Your task to perform on an android device: Open display settings Image 0: 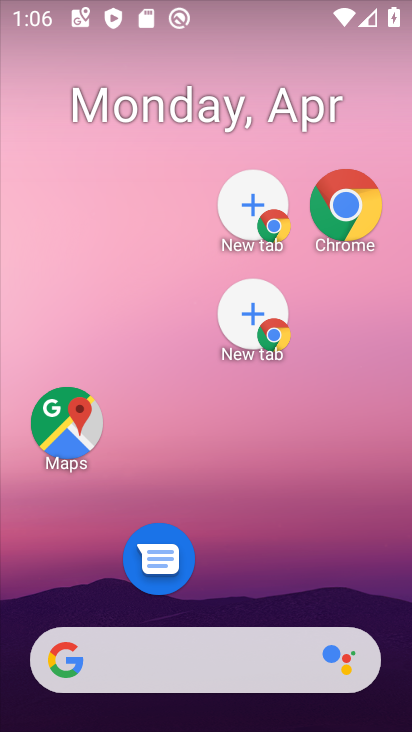
Step 0: drag from (215, 610) to (154, 108)
Your task to perform on an android device: Open display settings Image 1: 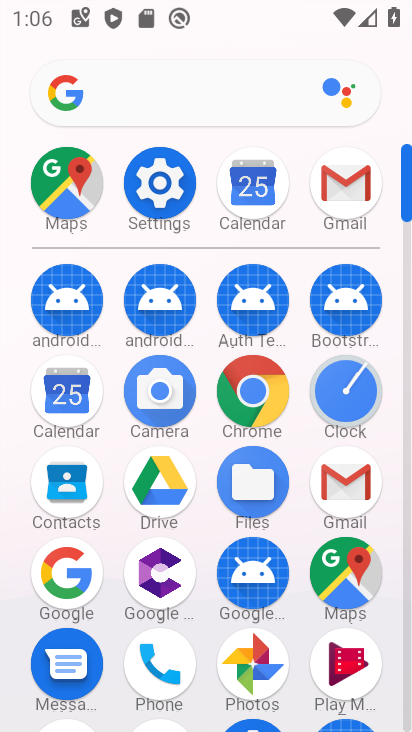
Step 1: click (175, 190)
Your task to perform on an android device: Open display settings Image 2: 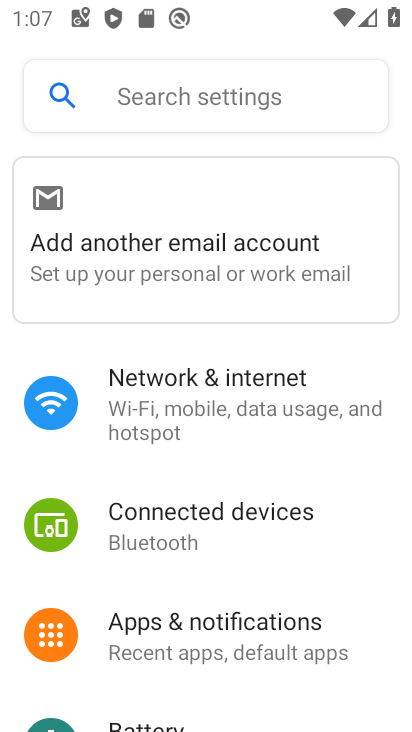
Step 2: drag from (210, 588) to (186, 237)
Your task to perform on an android device: Open display settings Image 3: 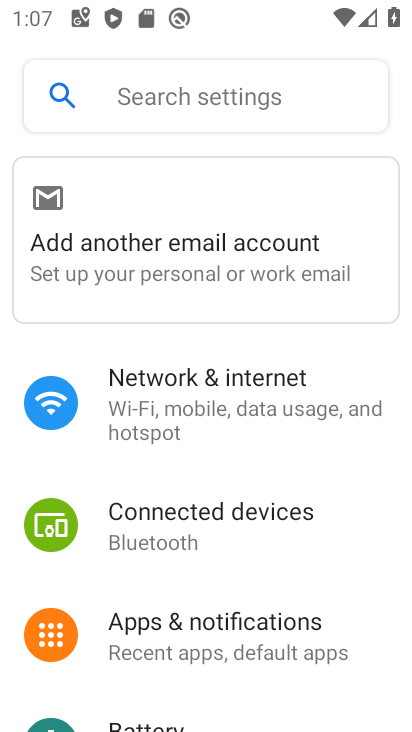
Step 3: drag from (196, 572) to (214, 207)
Your task to perform on an android device: Open display settings Image 4: 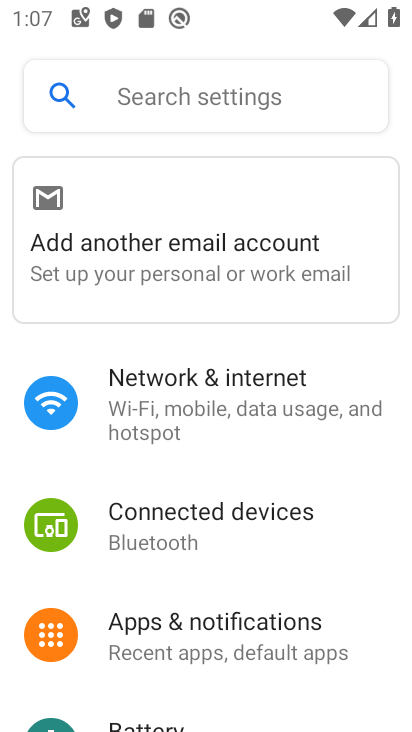
Step 4: drag from (165, 594) to (204, 149)
Your task to perform on an android device: Open display settings Image 5: 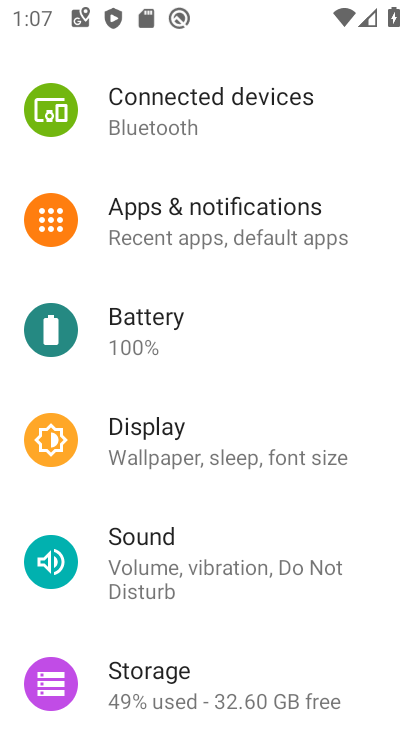
Step 5: click (207, 460)
Your task to perform on an android device: Open display settings Image 6: 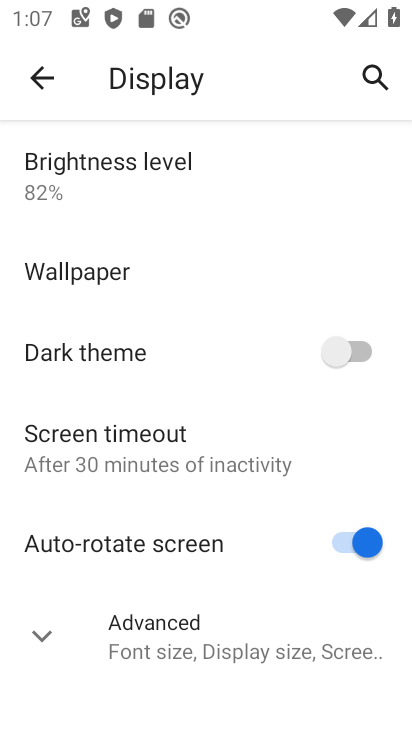
Step 6: task complete